Your task to perform on an android device: change the clock display to analog Image 0: 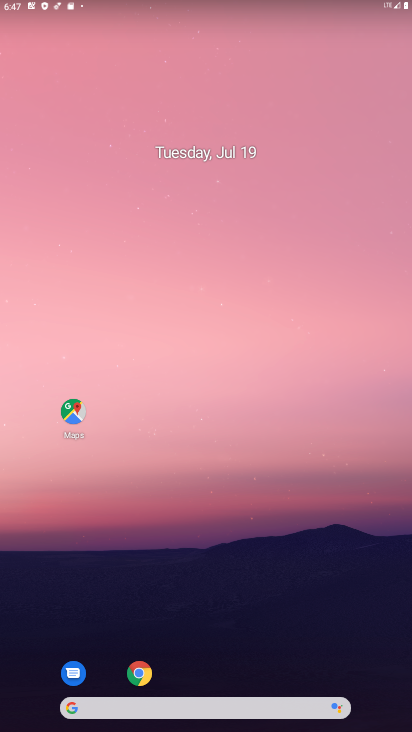
Step 0: drag from (345, 678) to (191, 64)
Your task to perform on an android device: change the clock display to analog Image 1: 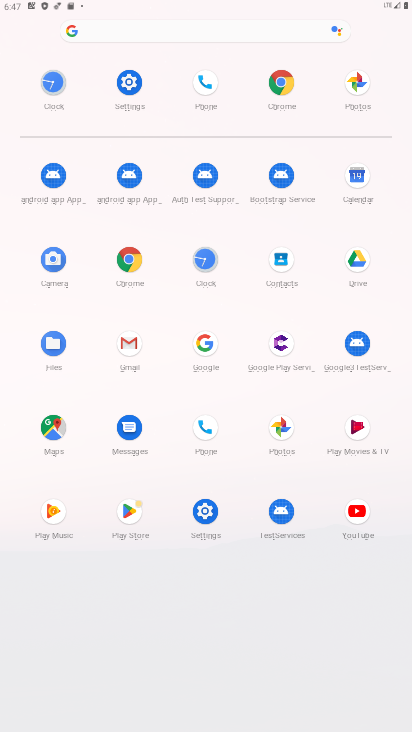
Step 1: click (207, 258)
Your task to perform on an android device: change the clock display to analog Image 2: 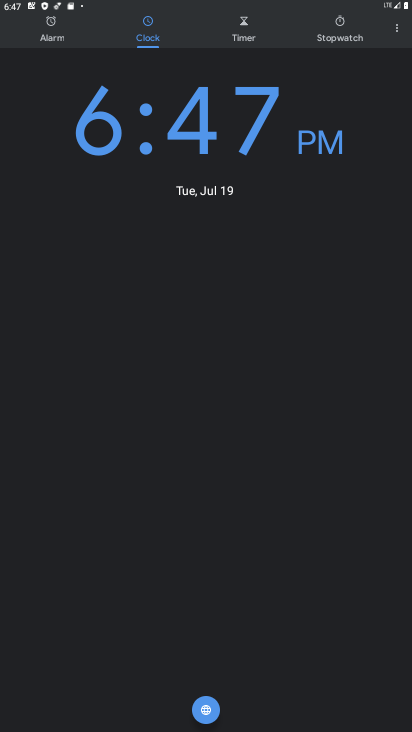
Step 2: click (393, 25)
Your task to perform on an android device: change the clock display to analog Image 3: 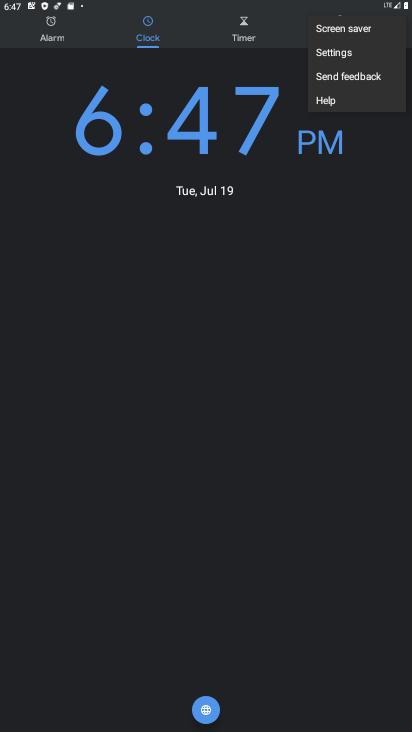
Step 3: click (349, 55)
Your task to perform on an android device: change the clock display to analog Image 4: 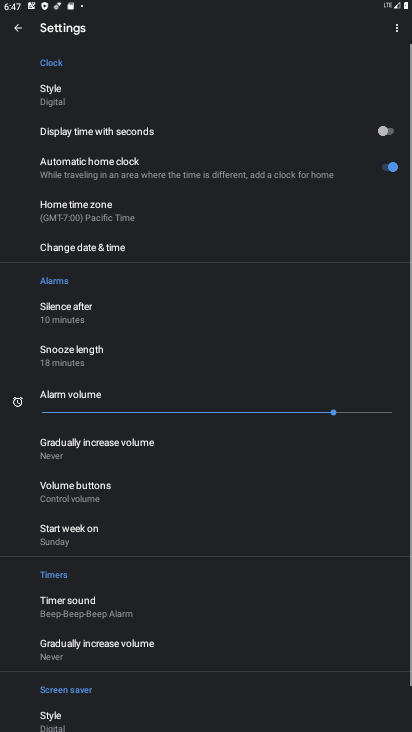
Step 4: click (68, 102)
Your task to perform on an android device: change the clock display to analog Image 5: 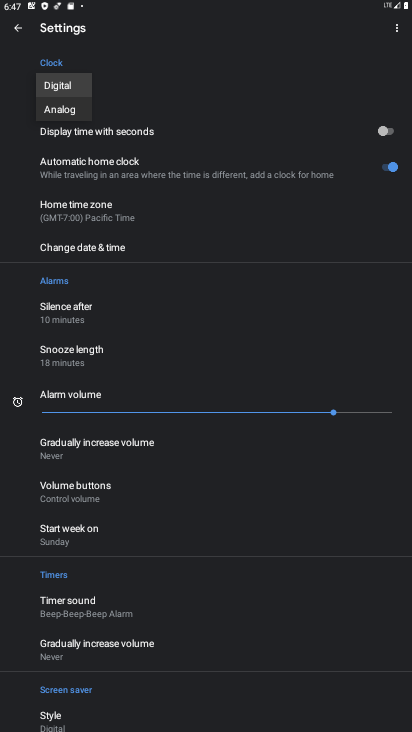
Step 5: click (68, 108)
Your task to perform on an android device: change the clock display to analog Image 6: 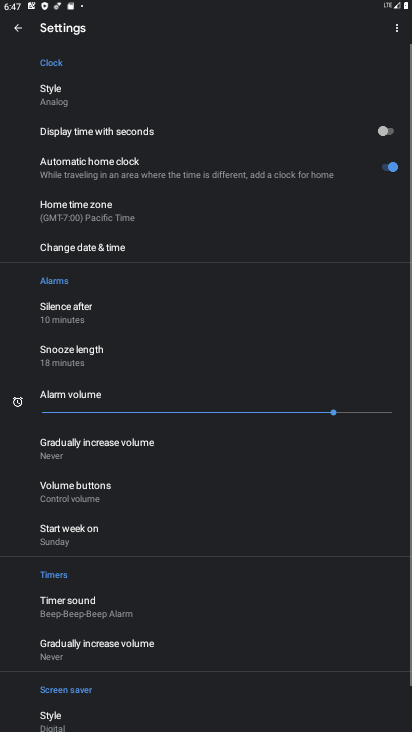
Step 6: task complete